Your task to perform on an android device: Open accessibility settings Image 0: 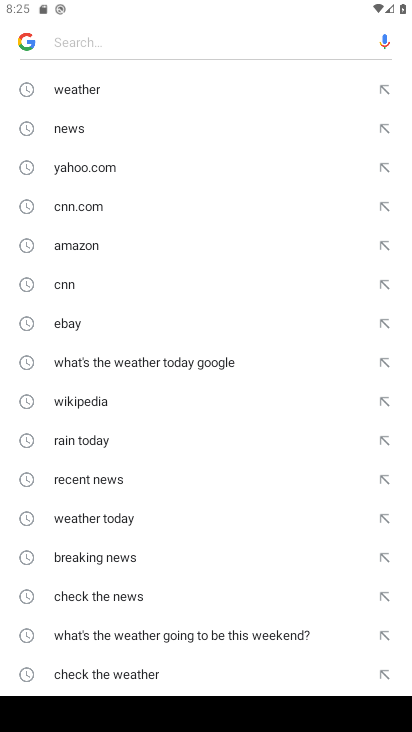
Step 0: press back button
Your task to perform on an android device: Open accessibility settings Image 1: 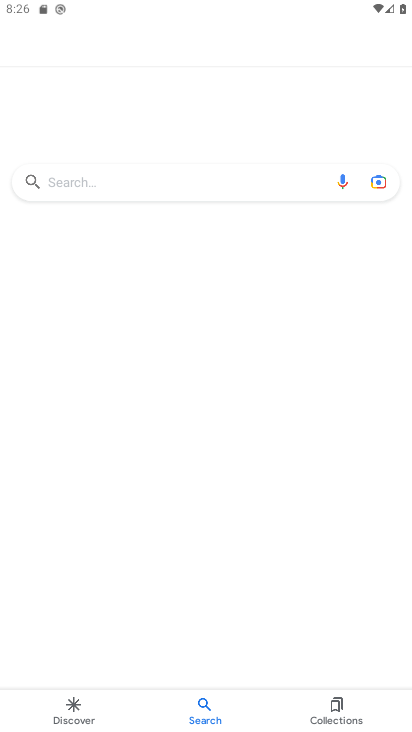
Step 1: press back button
Your task to perform on an android device: Open accessibility settings Image 2: 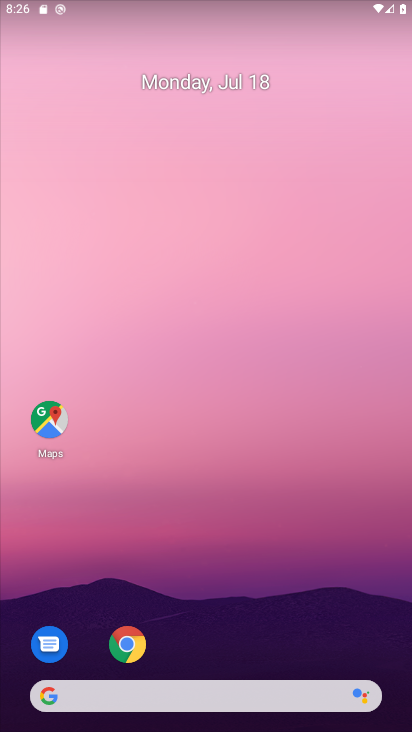
Step 2: drag from (295, 654) to (271, 75)
Your task to perform on an android device: Open accessibility settings Image 3: 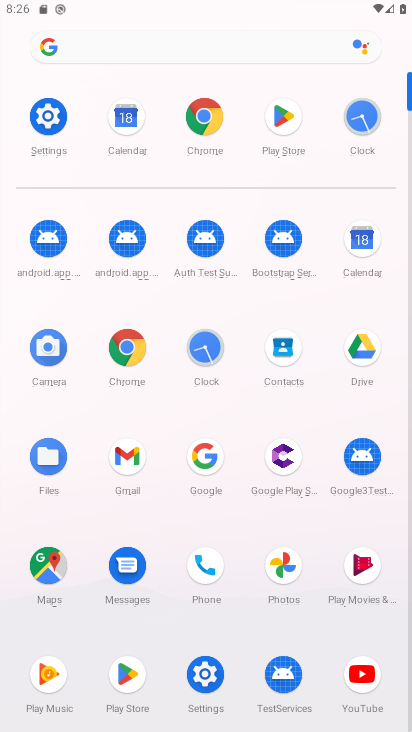
Step 3: click (49, 119)
Your task to perform on an android device: Open accessibility settings Image 4: 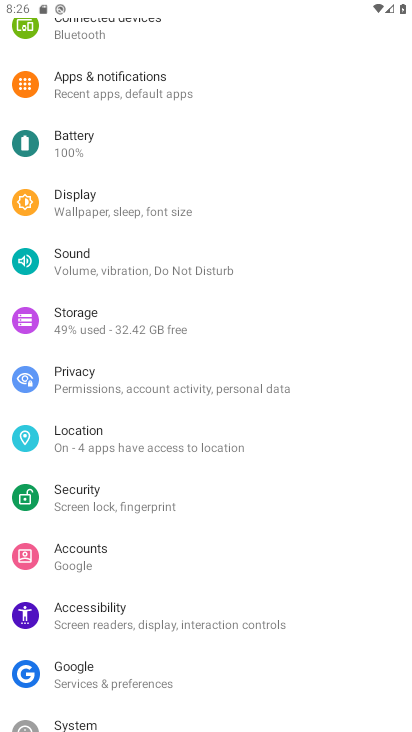
Step 4: click (136, 616)
Your task to perform on an android device: Open accessibility settings Image 5: 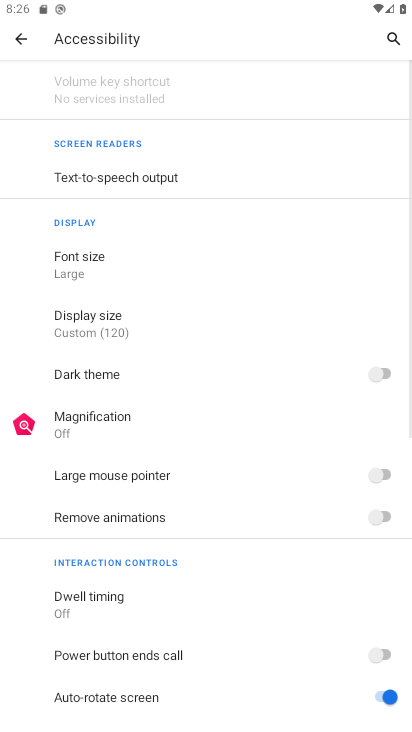
Step 5: task complete